Your task to perform on an android device: Go to eBay Image 0: 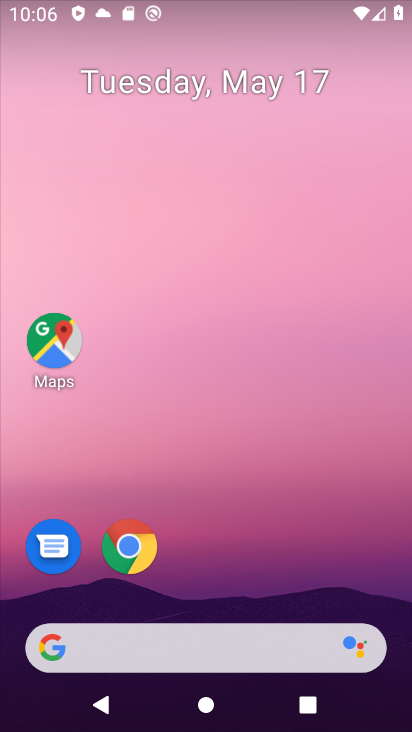
Step 0: drag from (237, 577) to (271, 126)
Your task to perform on an android device: Go to eBay Image 1: 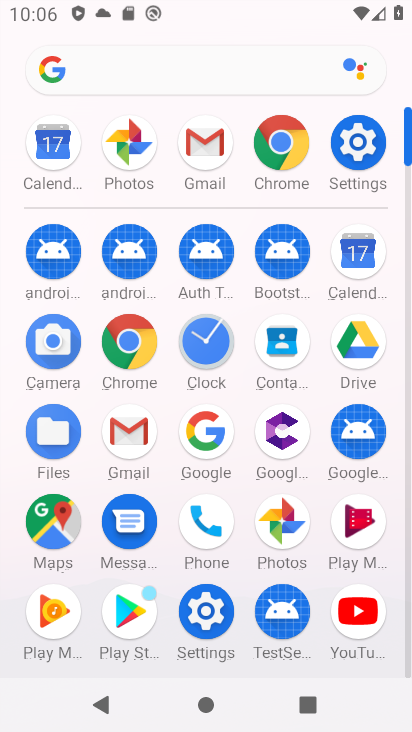
Step 1: click (199, 440)
Your task to perform on an android device: Go to eBay Image 2: 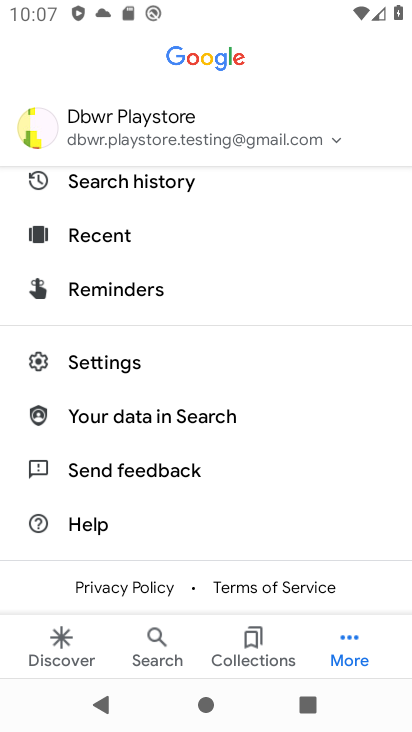
Step 2: press back button
Your task to perform on an android device: Go to eBay Image 3: 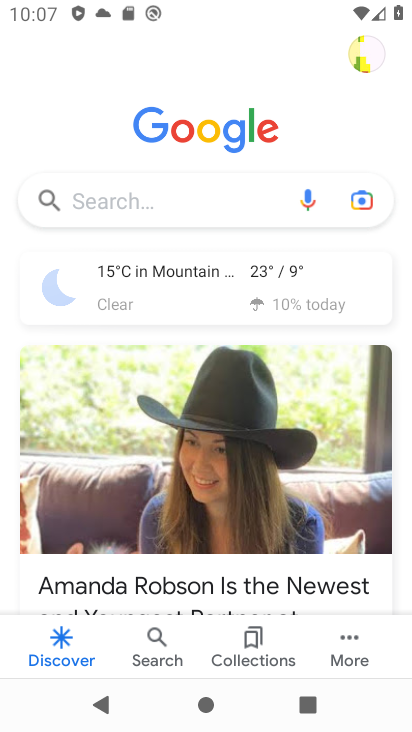
Step 3: click (125, 198)
Your task to perform on an android device: Go to eBay Image 4: 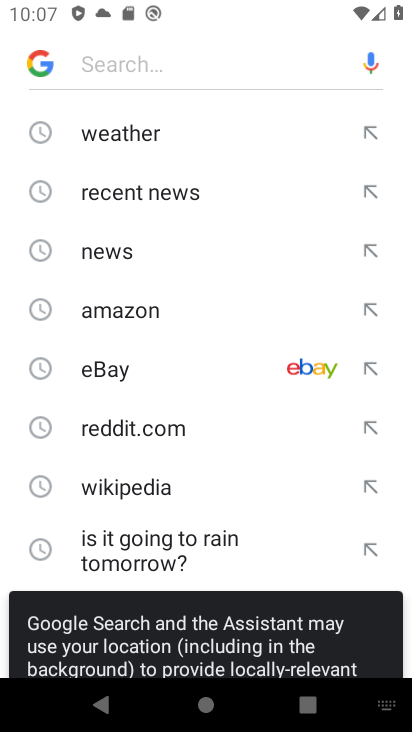
Step 4: type " eBay"
Your task to perform on an android device: Go to eBay Image 5: 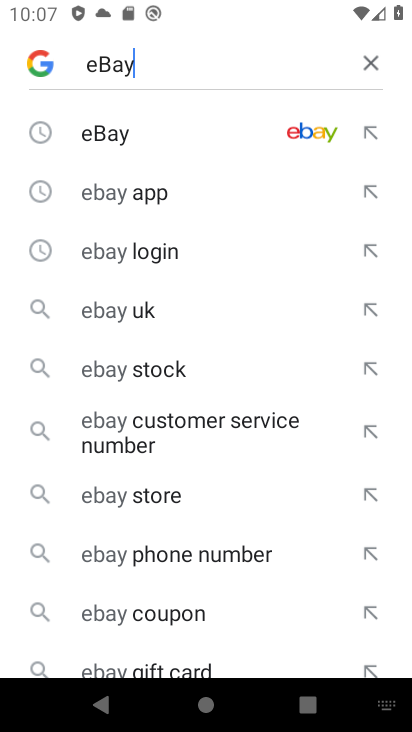
Step 5: click (260, 137)
Your task to perform on an android device: Go to eBay Image 6: 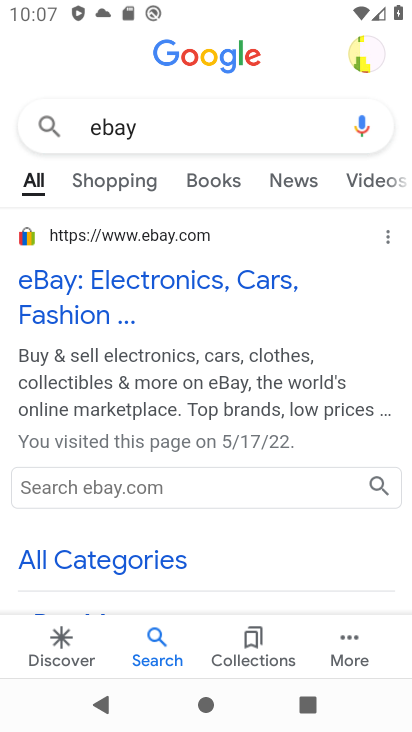
Step 6: task complete